Your task to perform on an android device: manage bookmarks in the chrome app Image 0: 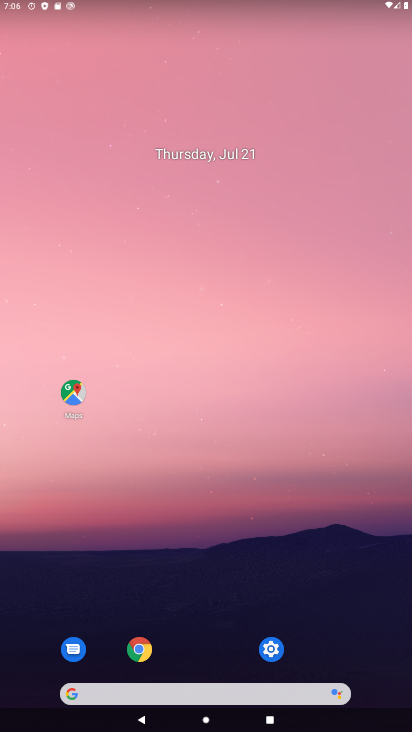
Step 0: click (132, 674)
Your task to perform on an android device: manage bookmarks in the chrome app Image 1: 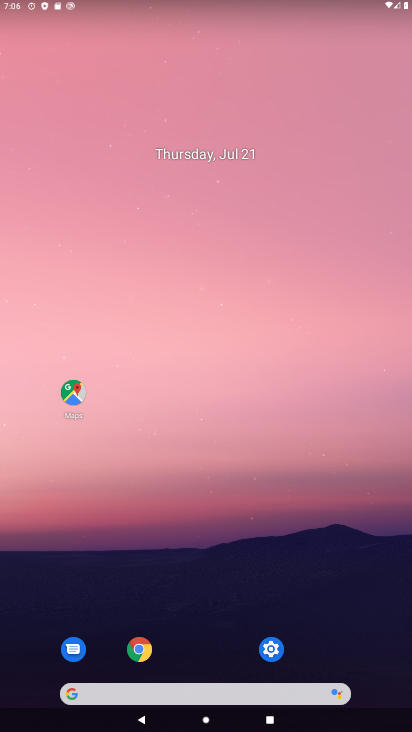
Step 1: click (143, 658)
Your task to perform on an android device: manage bookmarks in the chrome app Image 2: 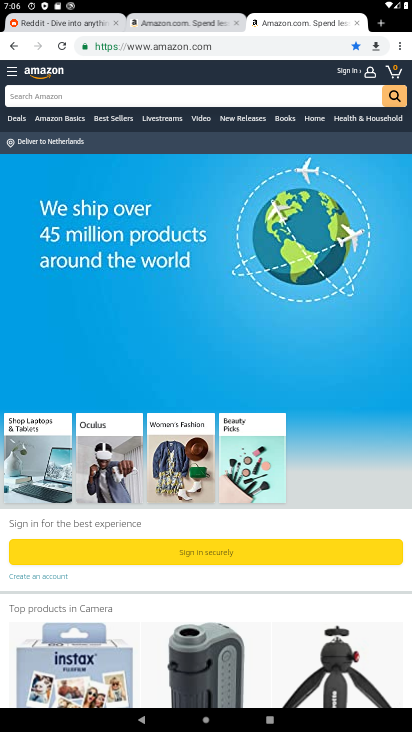
Step 2: click (394, 50)
Your task to perform on an android device: manage bookmarks in the chrome app Image 3: 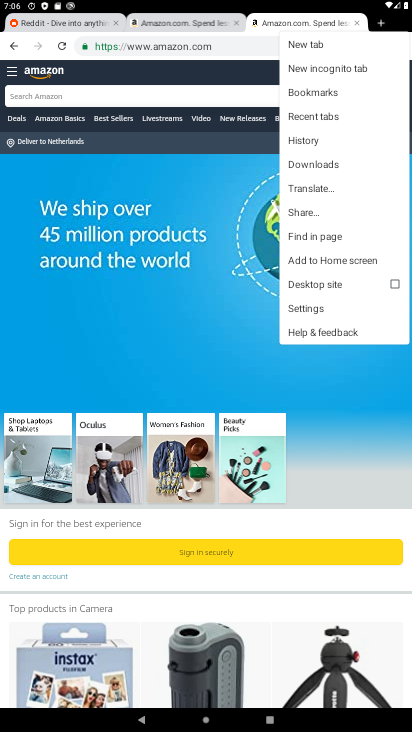
Step 3: click (316, 96)
Your task to perform on an android device: manage bookmarks in the chrome app Image 4: 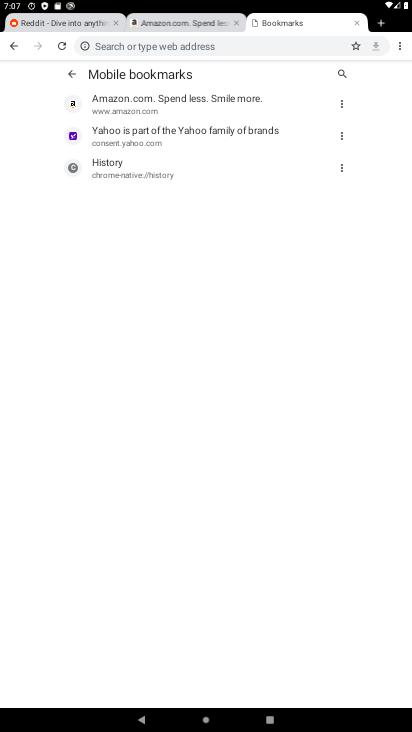
Step 4: task complete